Your task to perform on an android device: Show me recent news Image 0: 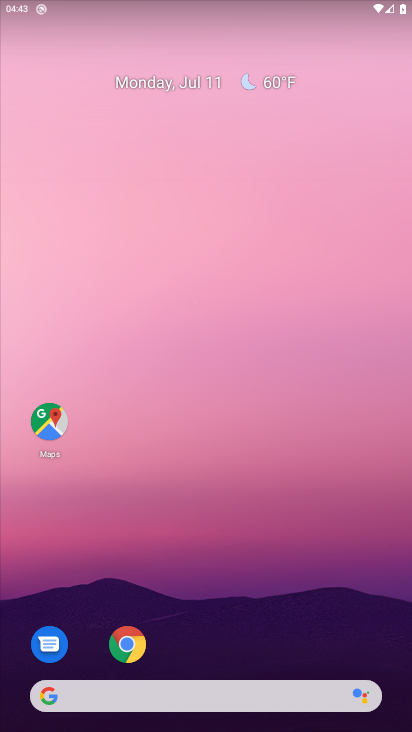
Step 0: drag from (230, 668) to (230, 331)
Your task to perform on an android device: Show me recent news Image 1: 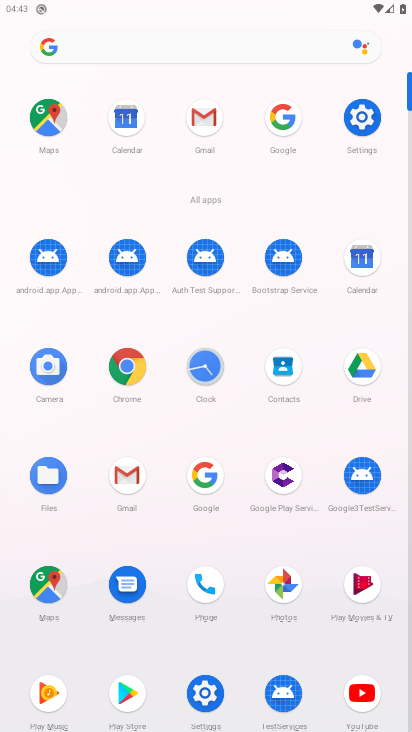
Step 1: click (280, 123)
Your task to perform on an android device: Show me recent news Image 2: 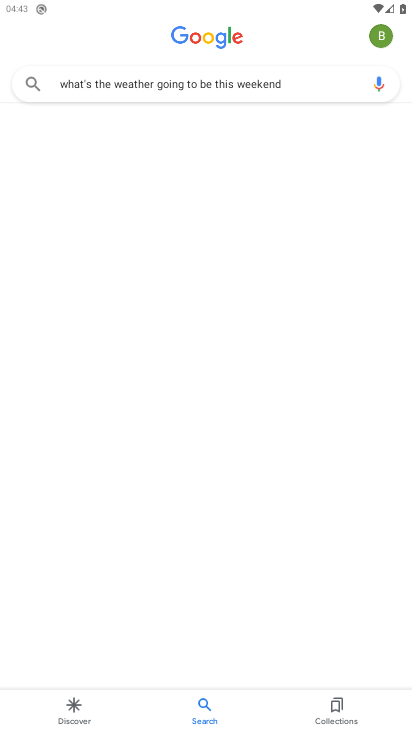
Step 2: click (296, 83)
Your task to perform on an android device: Show me recent news Image 3: 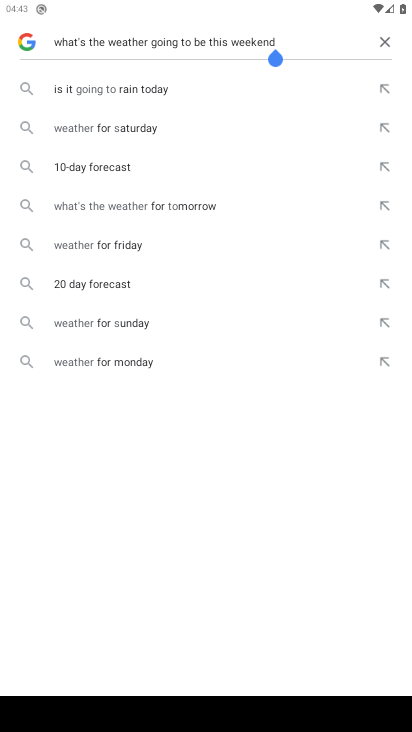
Step 3: click (384, 38)
Your task to perform on an android device: Show me recent news Image 4: 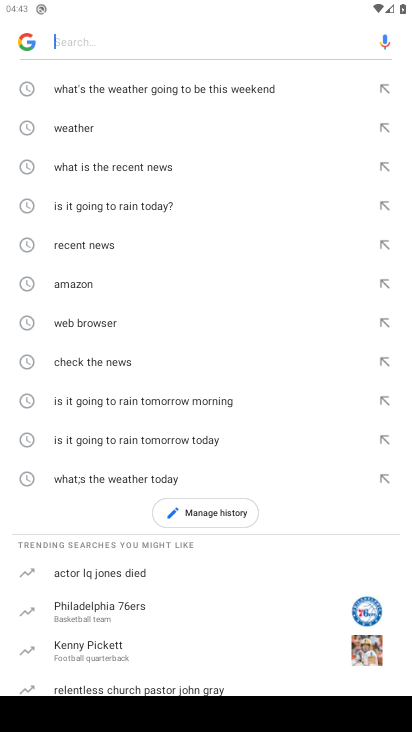
Step 4: click (89, 240)
Your task to perform on an android device: Show me recent news Image 5: 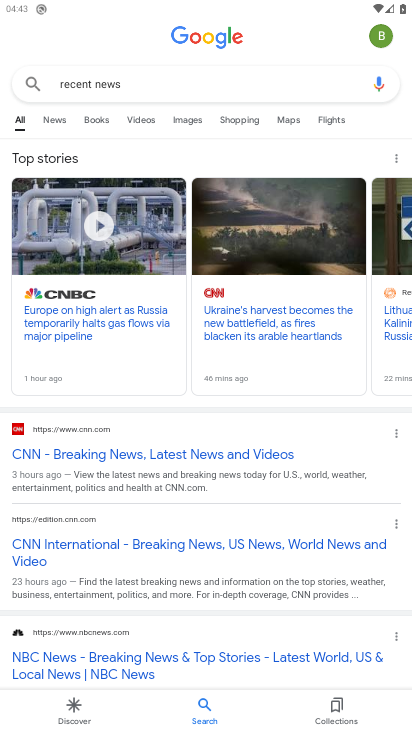
Step 5: task complete